Your task to perform on an android device: turn off improve location accuracy Image 0: 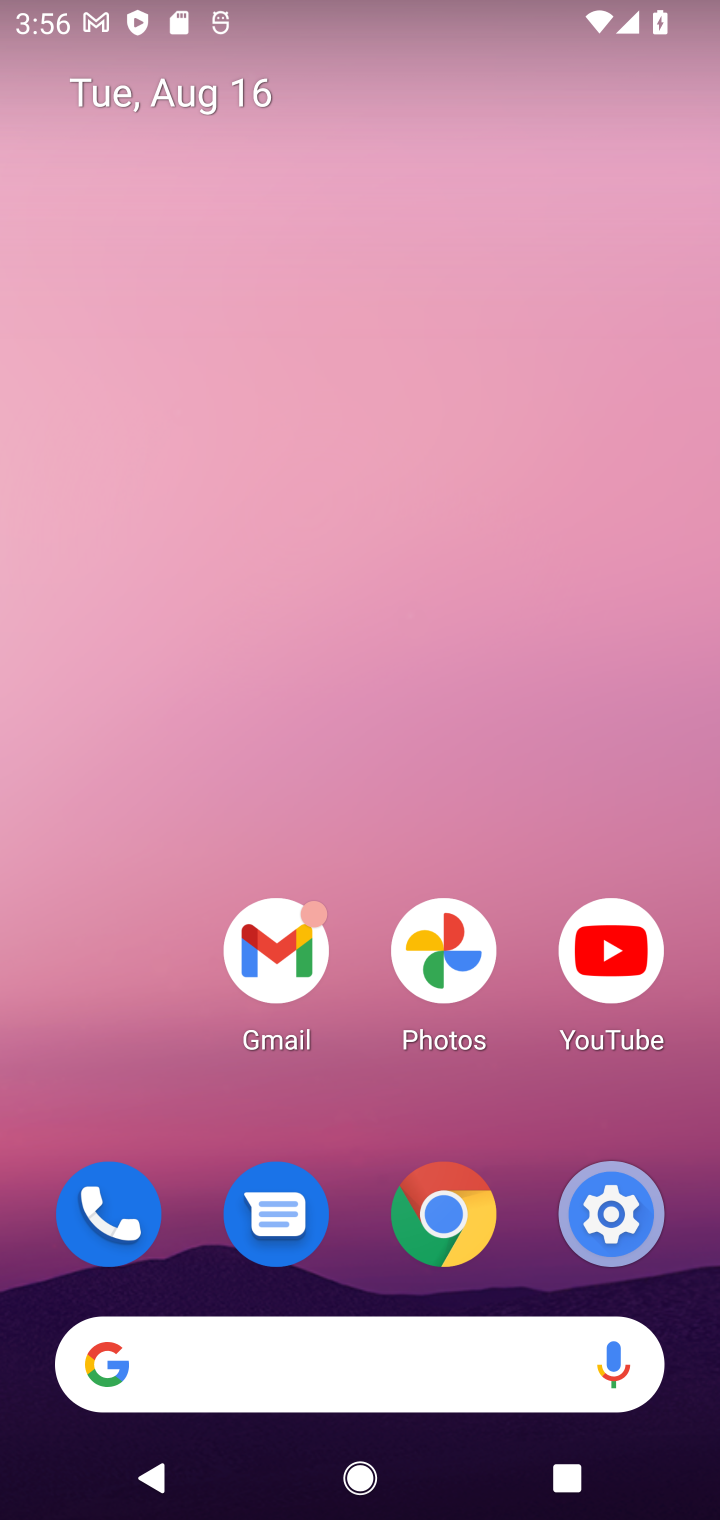
Step 0: drag from (164, 911) to (135, 508)
Your task to perform on an android device: turn off improve location accuracy Image 1: 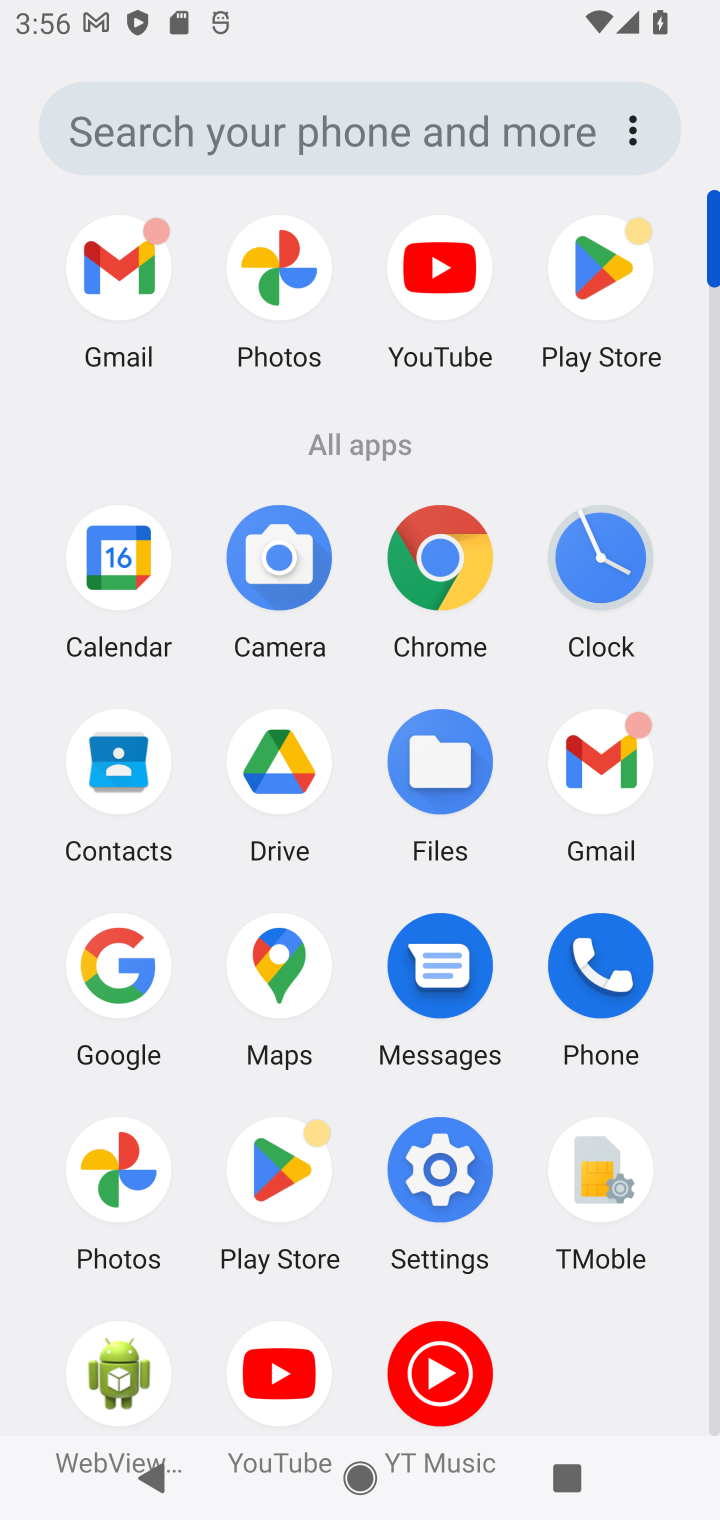
Step 1: click (429, 1223)
Your task to perform on an android device: turn off improve location accuracy Image 2: 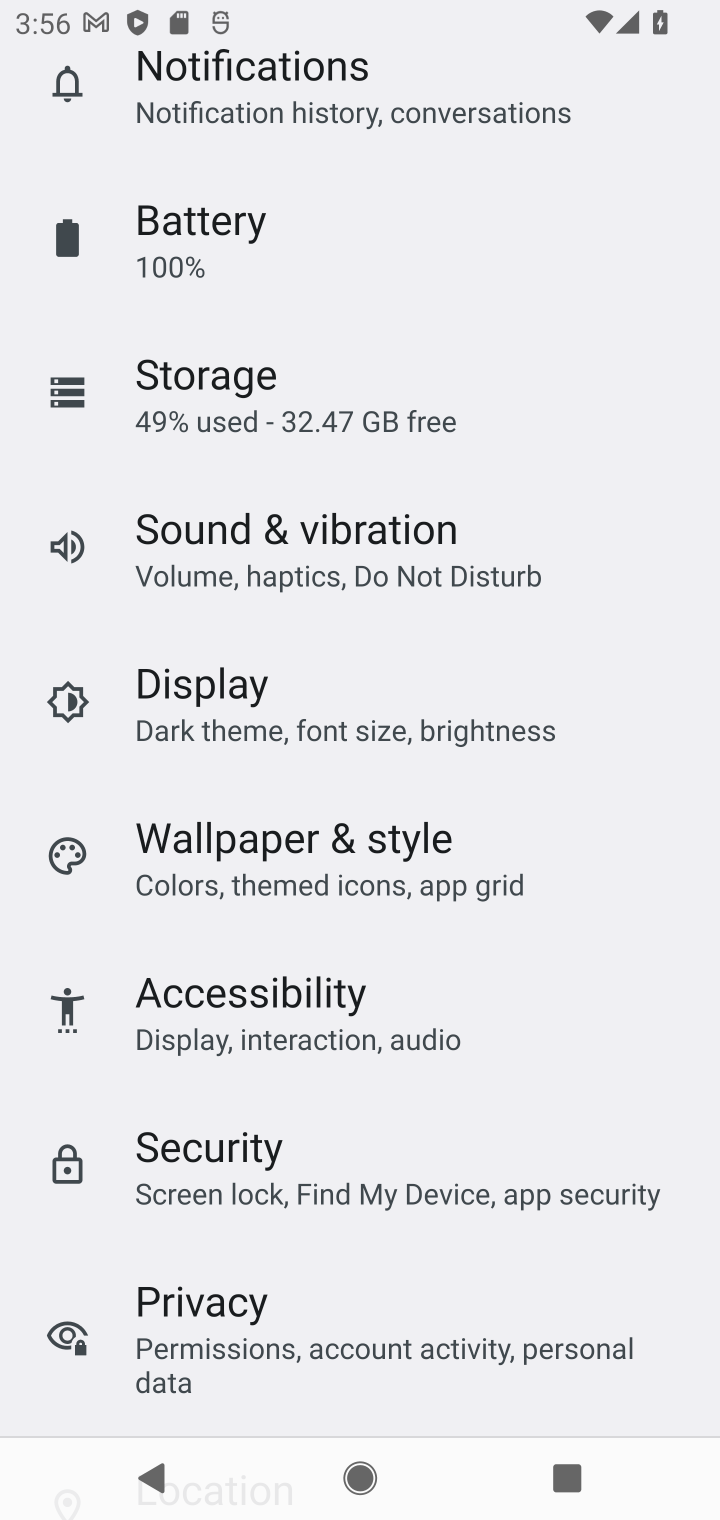
Step 2: drag from (233, 1287) to (71, 203)
Your task to perform on an android device: turn off improve location accuracy Image 3: 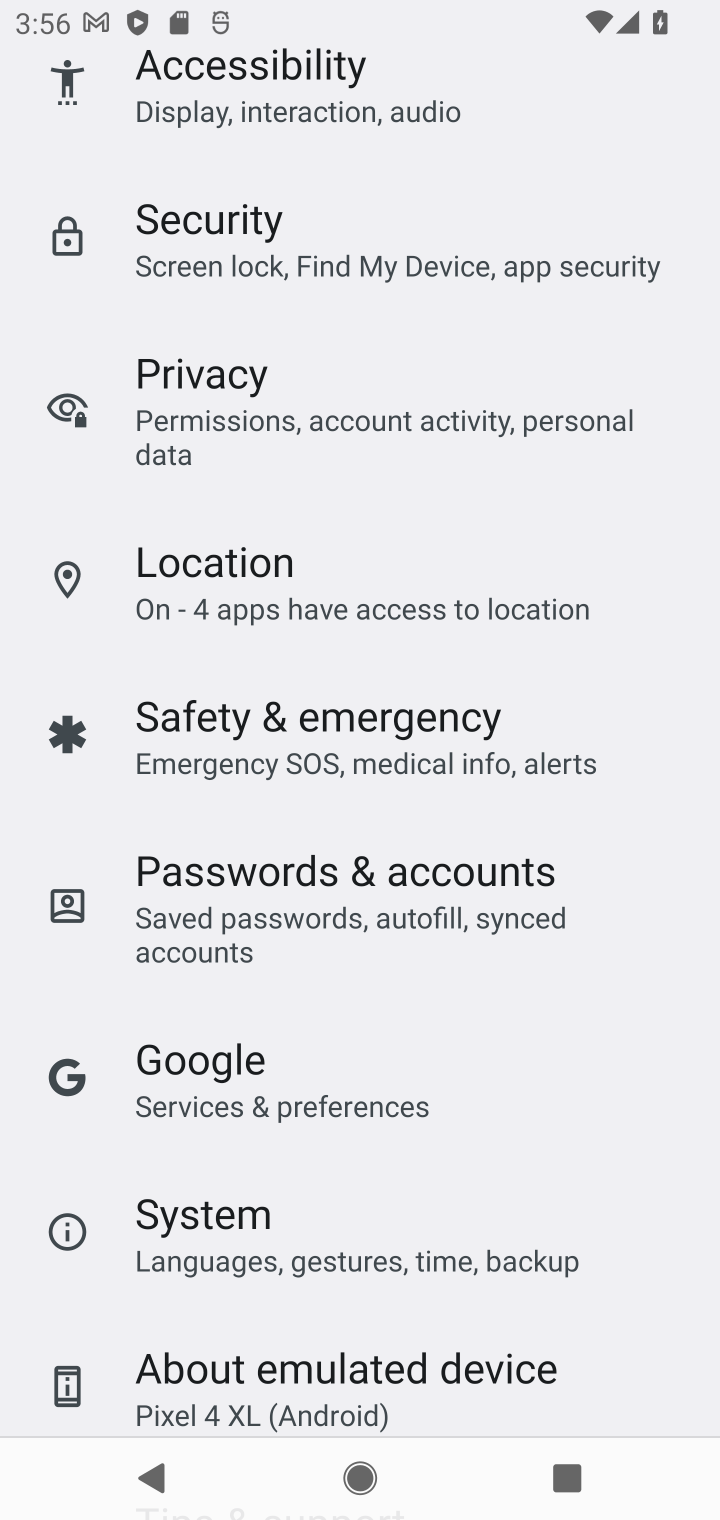
Step 3: click (194, 554)
Your task to perform on an android device: turn off improve location accuracy Image 4: 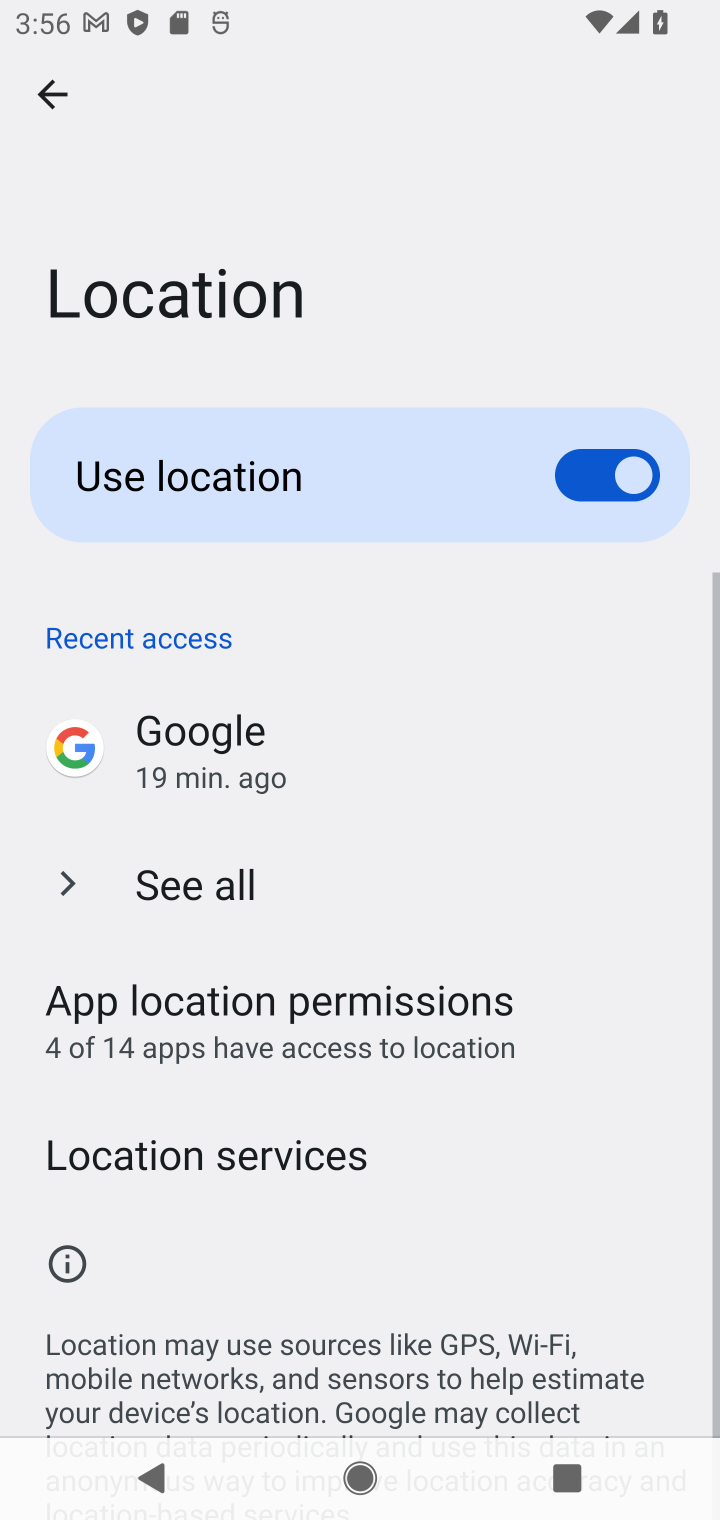
Step 4: click (217, 1151)
Your task to perform on an android device: turn off improve location accuracy Image 5: 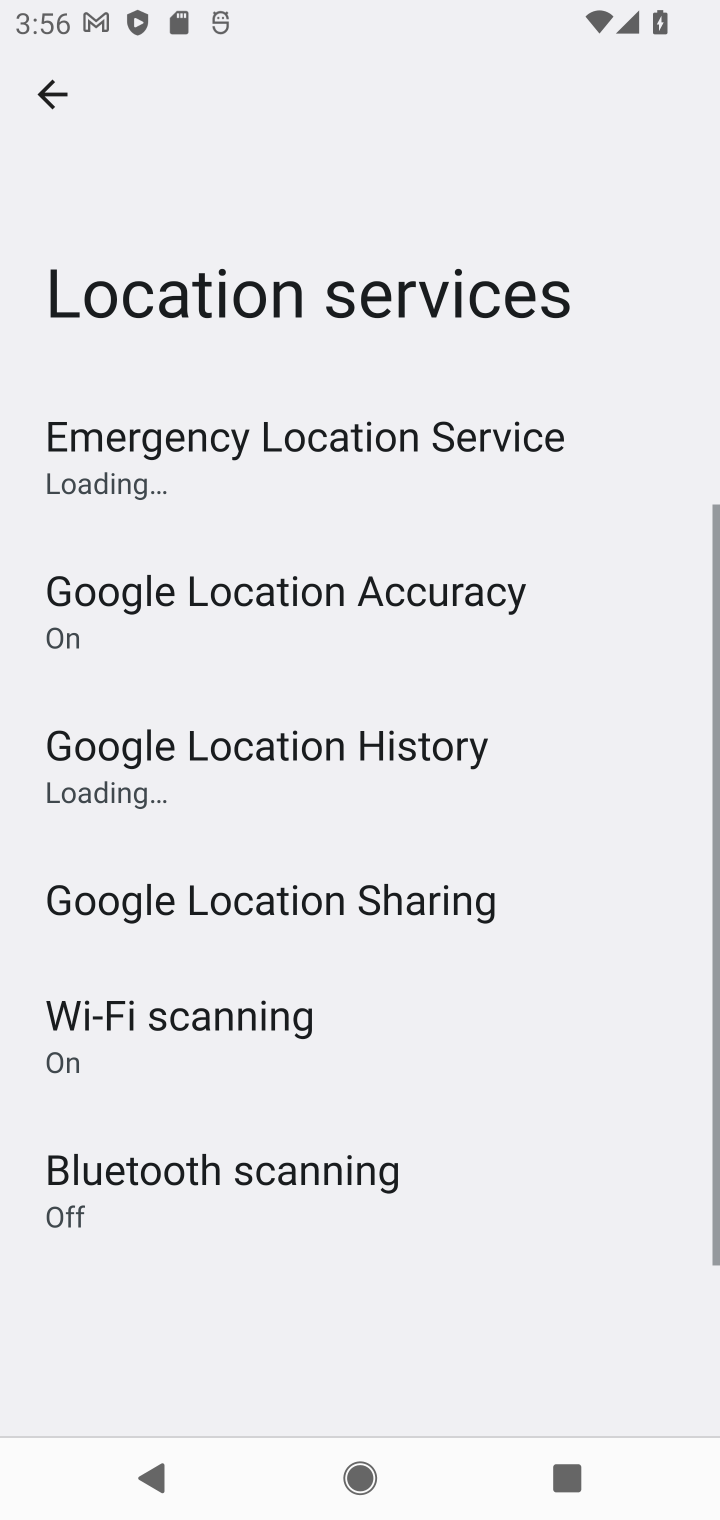
Step 5: drag from (148, 809) to (131, 487)
Your task to perform on an android device: turn off improve location accuracy Image 6: 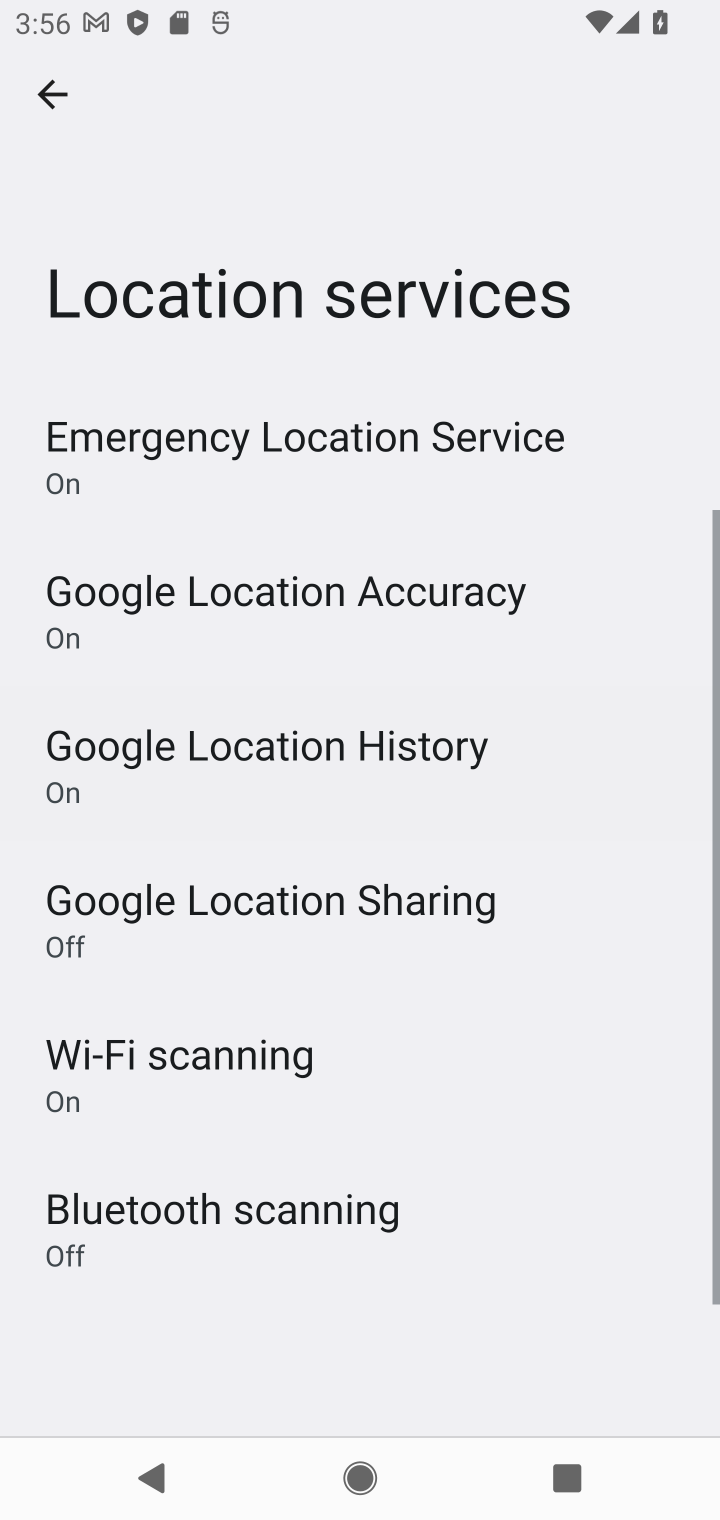
Step 6: click (236, 619)
Your task to perform on an android device: turn off improve location accuracy Image 7: 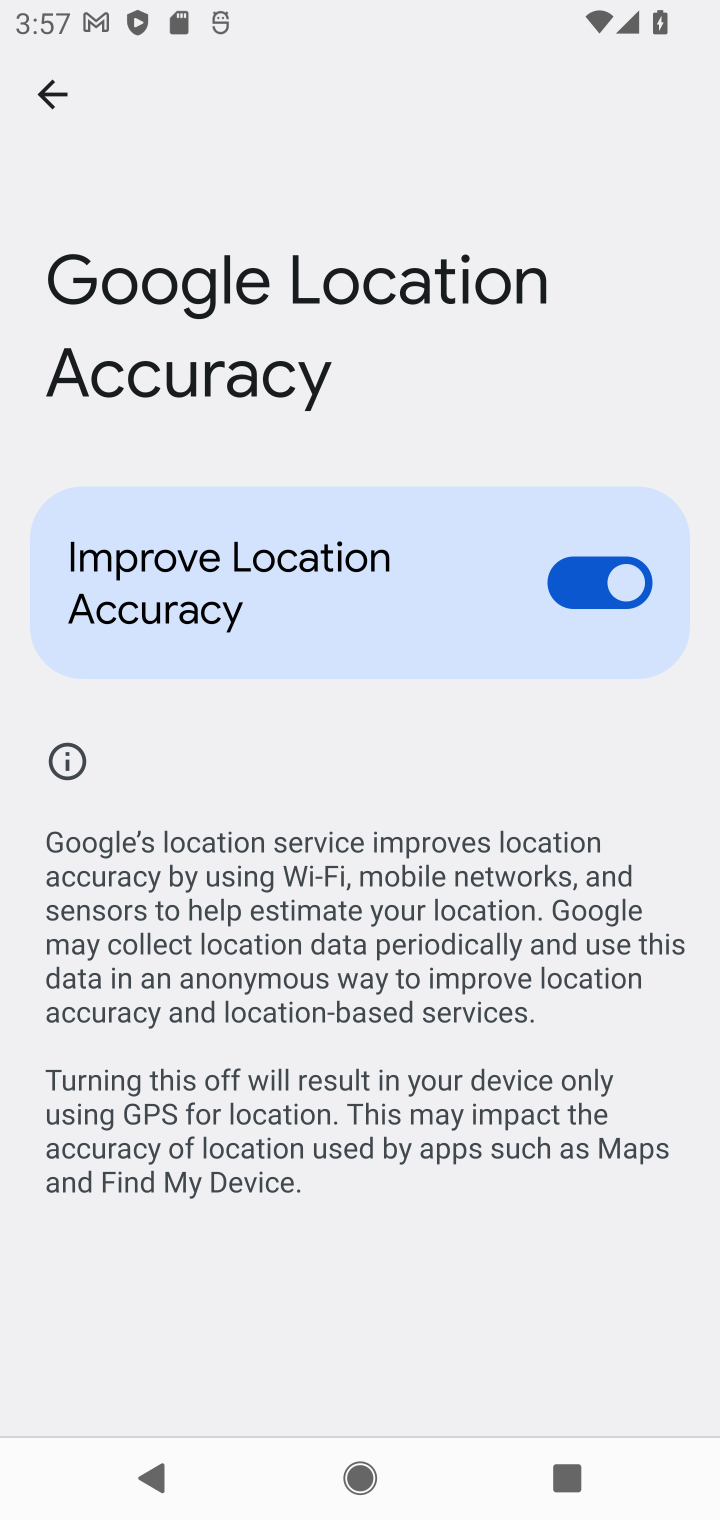
Step 7: click (564, 579)
Your task to perform on an android device: turn off improve location accuracy Image 8: 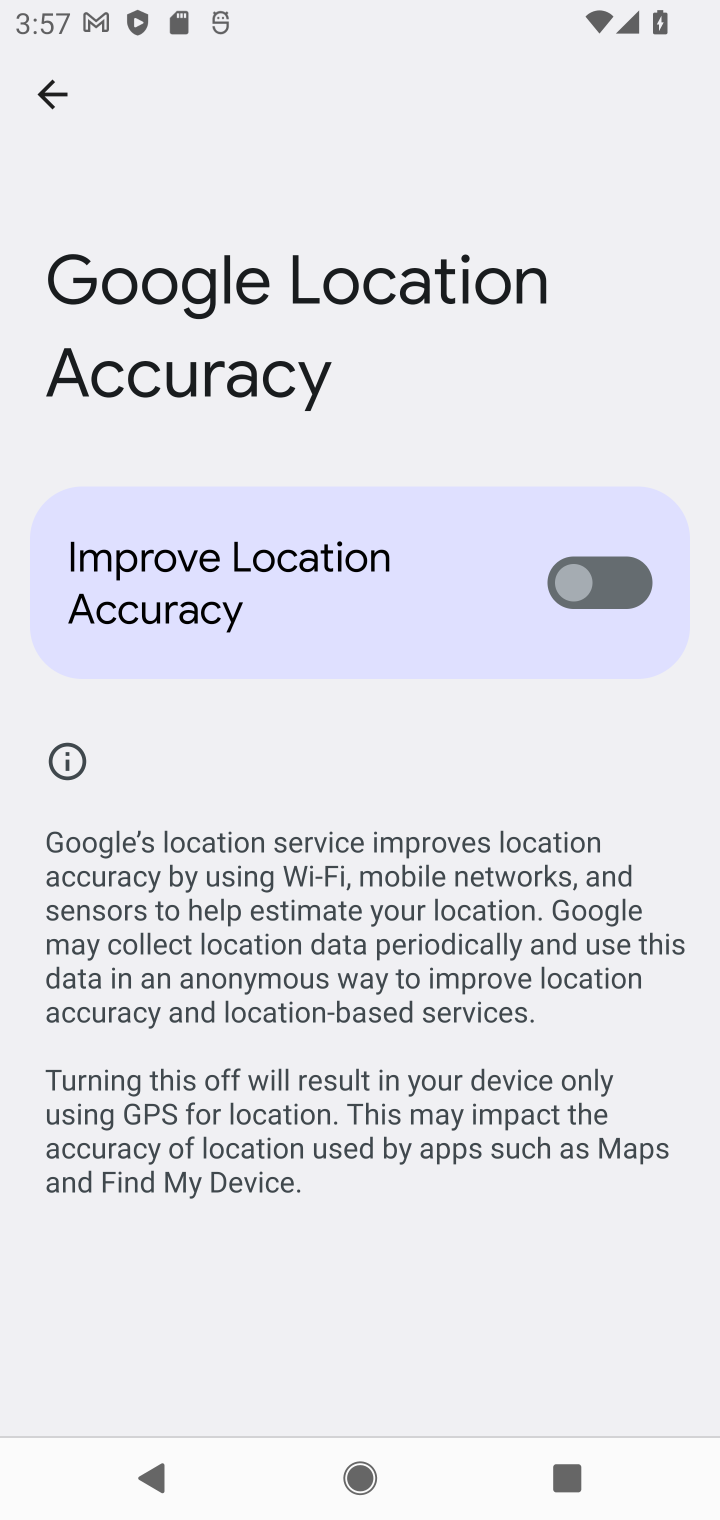
Step 8: task complete